Your task to perform on an android device: Go to Wikipedia Image 0: 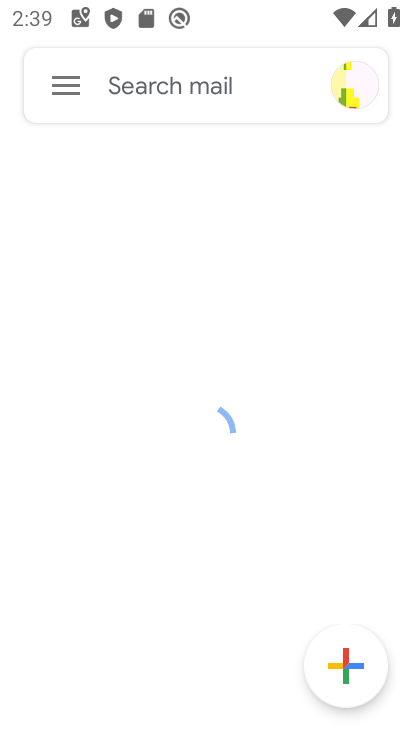
Step 0: press home button
Your task to perform on an android device: Go to Wikipedia Image 1: 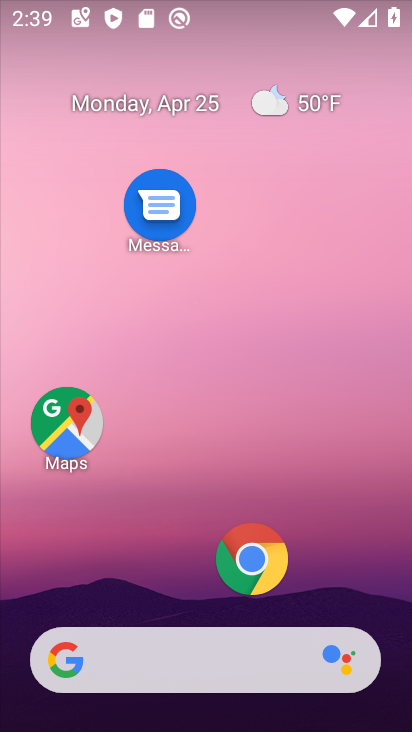
Step 1: click (260, 550)
Your task to perform on an android device: Go to Wikipedia Image 2: 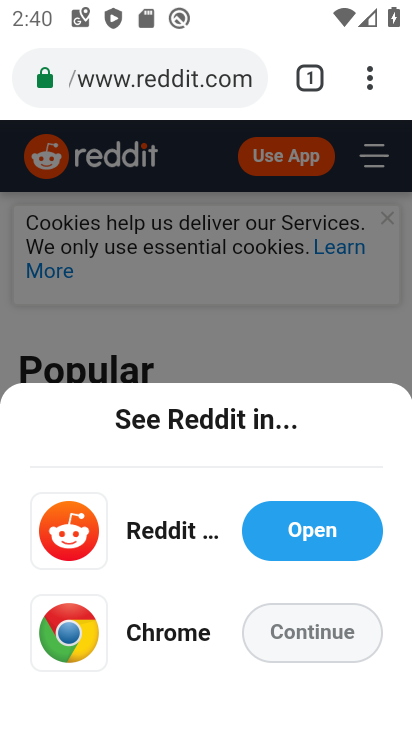
Step 2: click (296, 636)
Your task to perform on an android device: Go to Wikipedia Image 3: 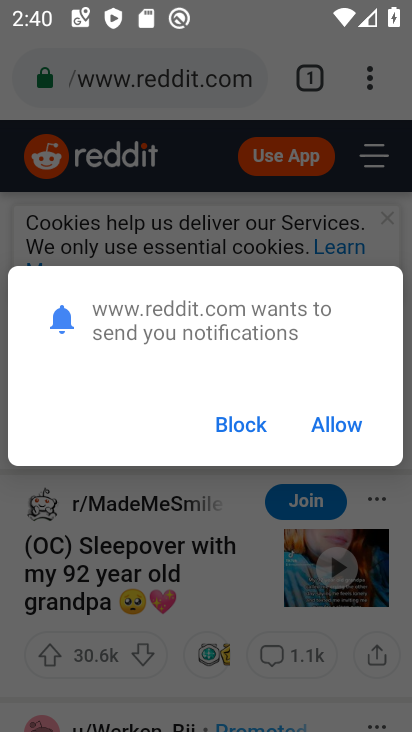
Step 3: click (248, 420)
Your task to perform on an android device: Go to Wikipedia Image 4: 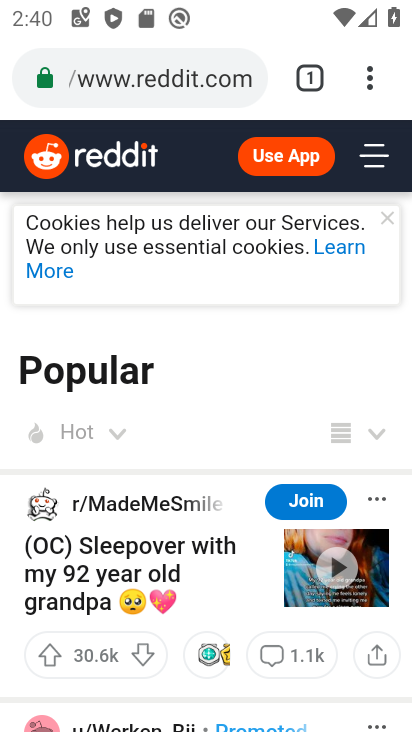
Step 4: click (364, 88)
Your task to perform on an android device: Go to Wikipedia Image 5: 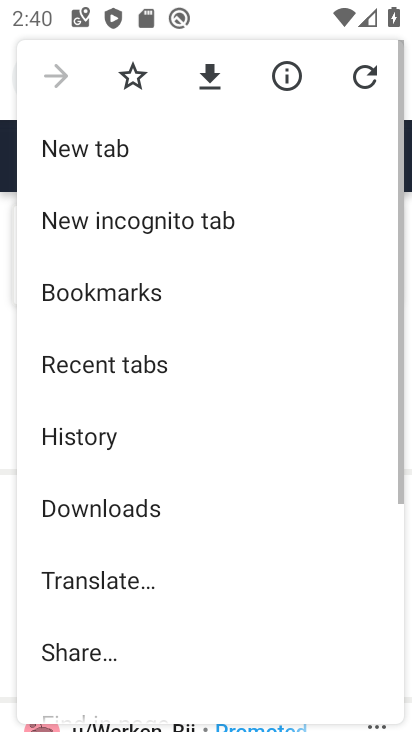
Step 5: click (141, 156)
Your task to perform on an android device: Go to Wikipedia Image 6: 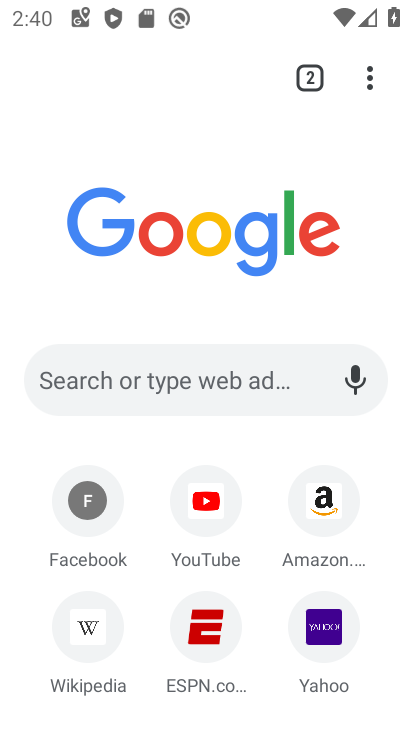
Step 6: click (94, 617)
Your task to perform on an android device: Go to Wikipedia Image 7: 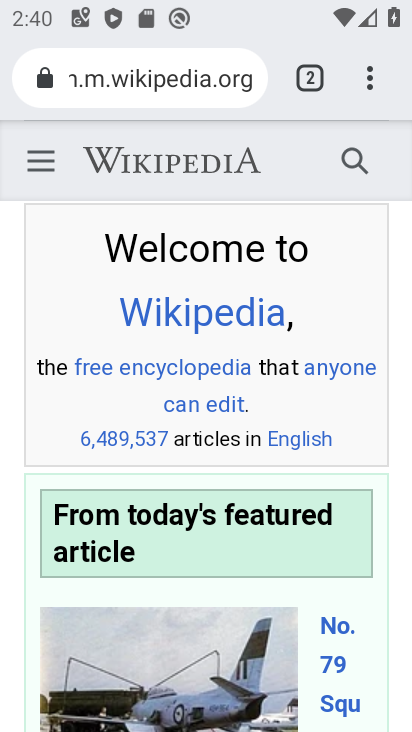
Step 7: task complete